Your task to perform on an android device: Turn off the flashlight Image 0: 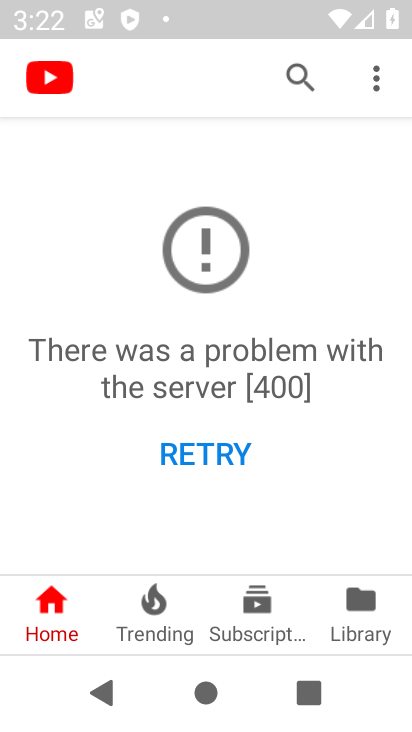
Step 0: press home button
Your task to perform on an android device: Turn off the flashlight Image 1: 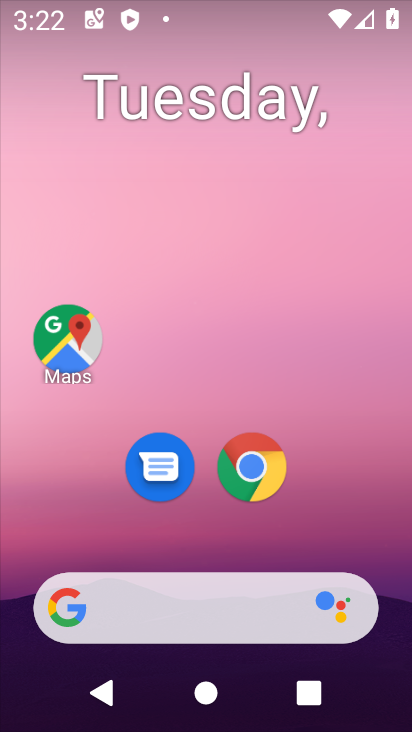
Step 1: drag from (218, 547) to (199, 24)
Your task to perform on an android device: Turn off the flashlight Image 2: 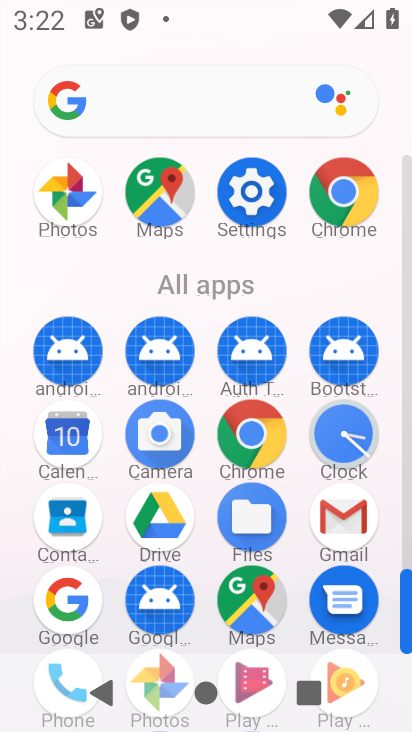
Step 2: click (243, 185)
Your task to perform on an android device: Turn off the flashlight Image 3: 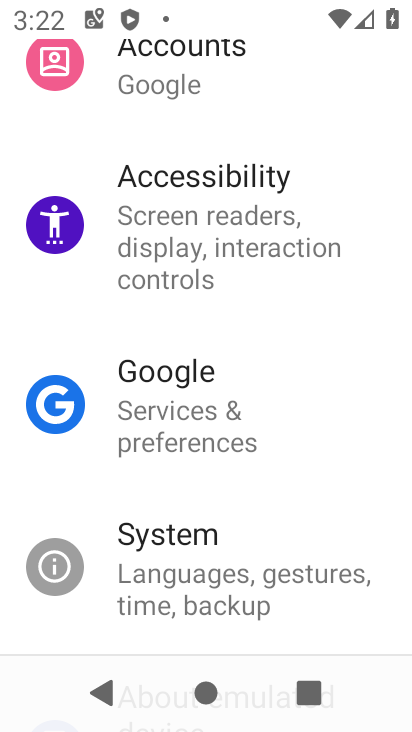
Step 3: drag from (272, 143) to (170, 527)
Your task to perform on an android device: Turn off the flashlight Image 4: 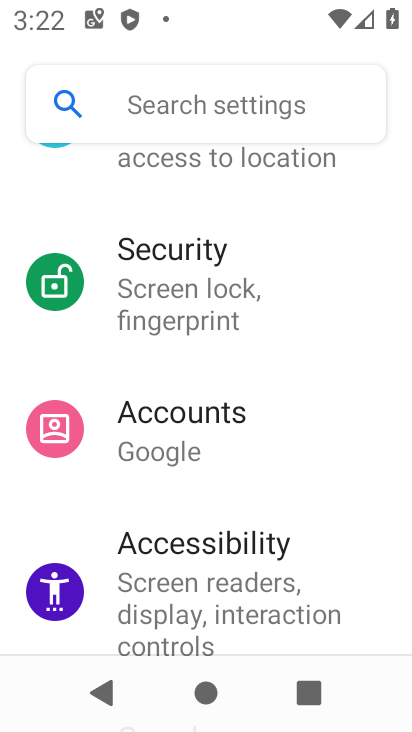
Step 4: click (212, 115)
Your task to perform on an android device: Turn off the flashlight Image 5: 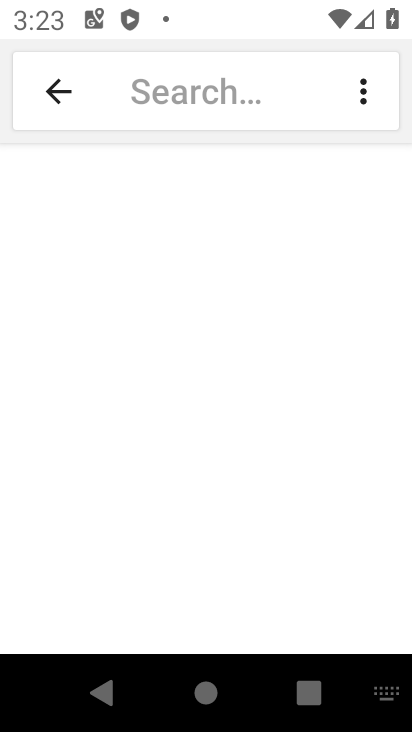
Step 5: type "flashlight"
Your task to perform on an android device: Turn off the flashlight Image 6: 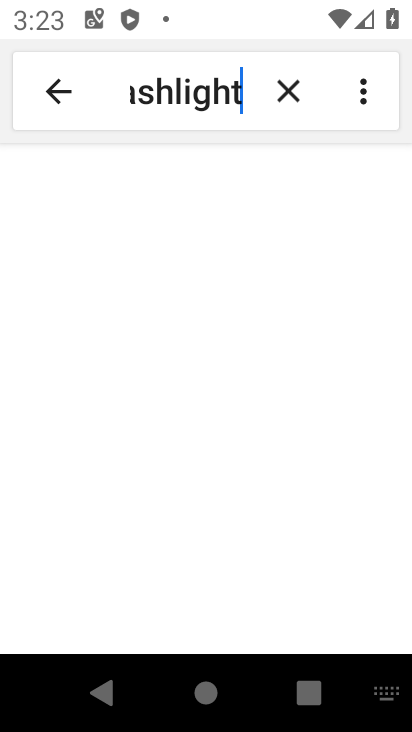
Step 6: task complete